Your task to perform on an android device: Open the Play Movies app and select the watchlist tab. Image 0: 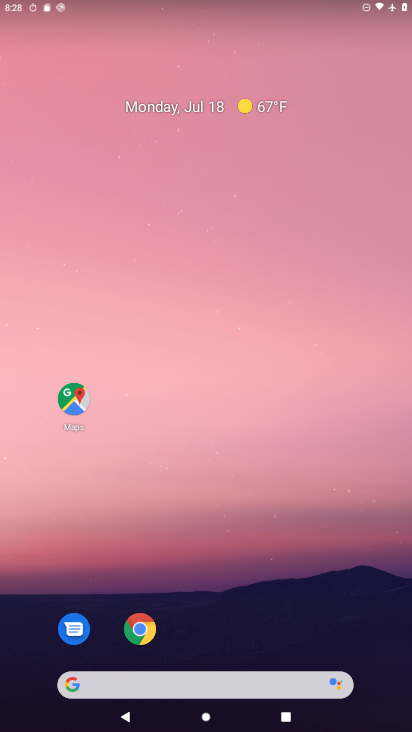
Step 0: drag from (227, 666) to (163, 88)
Your task to perform on an android device: Open the Play Movies app and select the watchlist tab. Image 1: 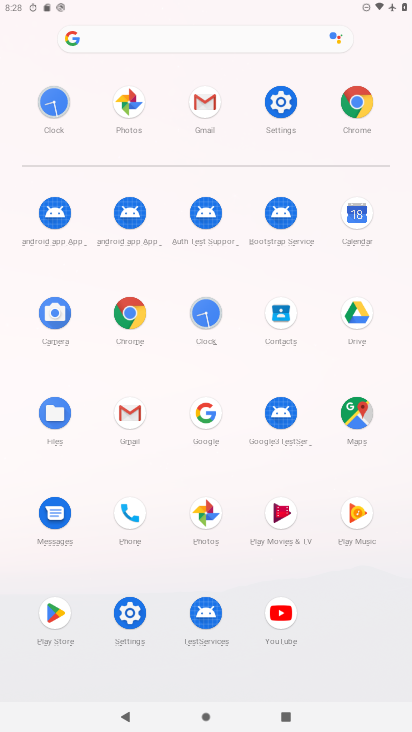
Step 1: click (286, 506)
Your task to perform on an android device: Open the Play Movies app and select the watchlist tab. Image 2: 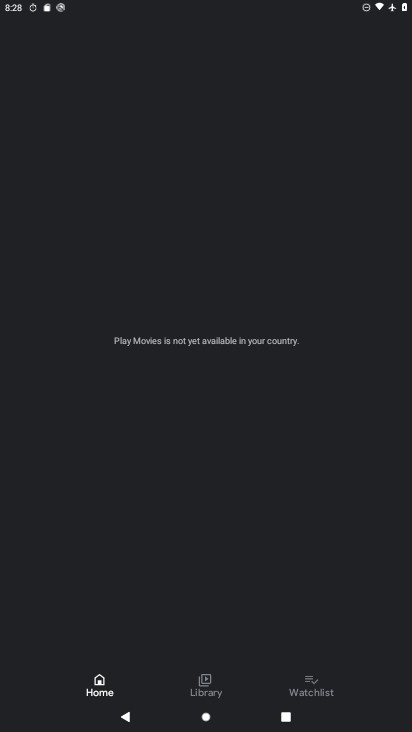
Step 2: click (318, 664)
Your task to perform on an android device: Open the Play Movies app and select the watchlist tab. Image 3: 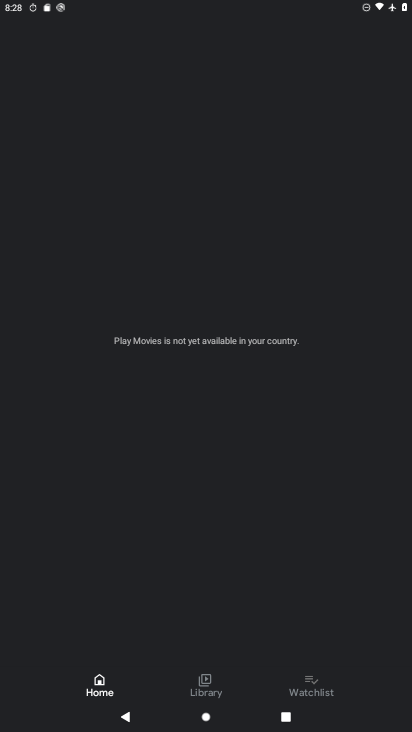
Step 3: click (315, 670)
Your task to perform on an android device: Open the Play Movies app and select the watchlist tab. Image 4: 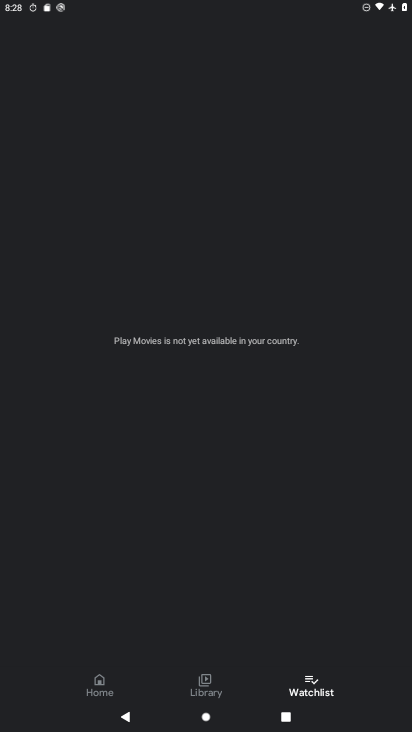
Step 4: task complete